Your task to perform on an android device: Open settings on Google Maps Image 0: 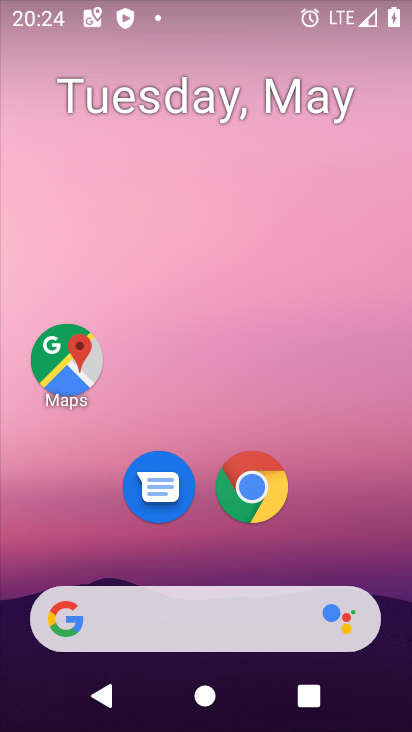
Step 0: click (68, 358)
Your task to perform on an android device: Open settings on Google Maps Image 1: 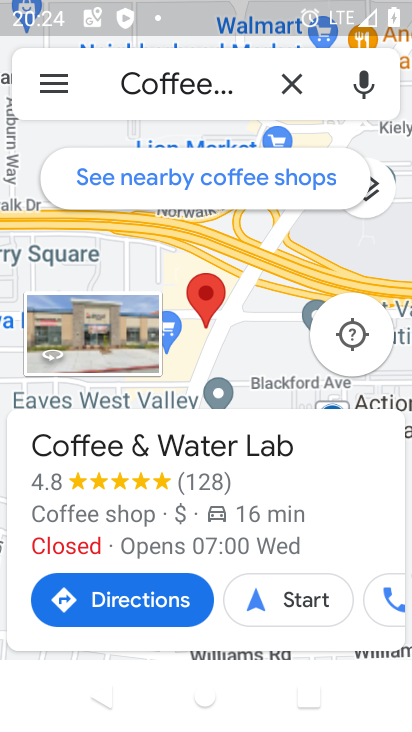
Step 1: click (56, 77)
Your task to perform on an android device: Open settings on Google Maps Image 2: 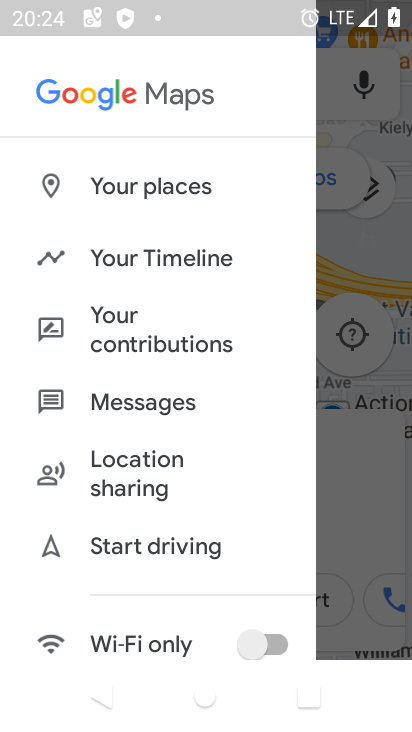
Step 2: drag from (136, 559) to (136, 143)
Your task to perform on an android device: Open settings on Google Maps Image 3: 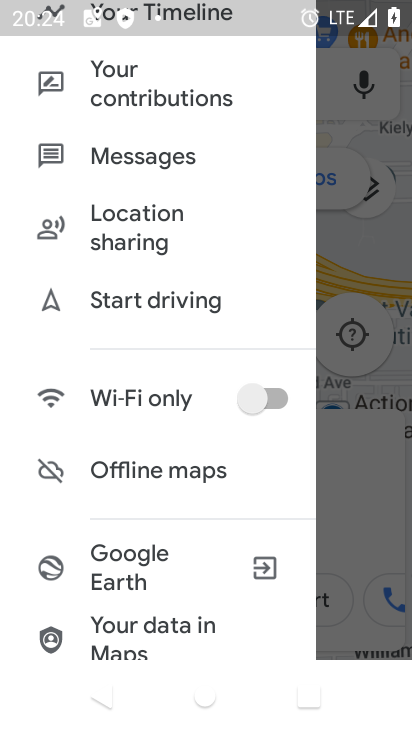
Step 3: drag from (142, 493) to (155, 183)
Your task to perform on an android device: Open settings on Google Maps Image 4: 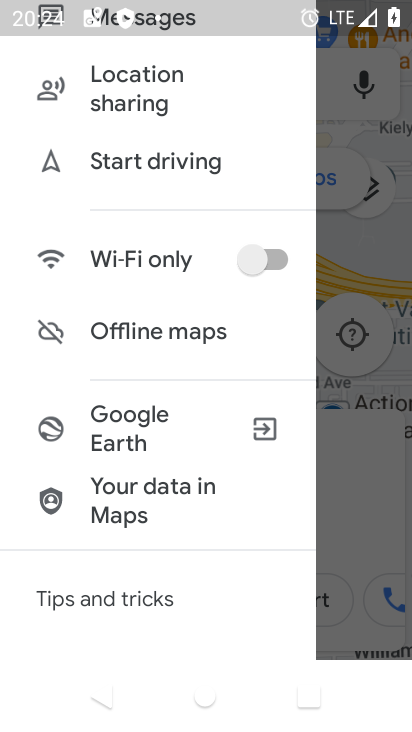
Step 4: drag from (160, 539) to (147, 262)
Your task to perform on an android device: Open settings on Google Maps Image 5: 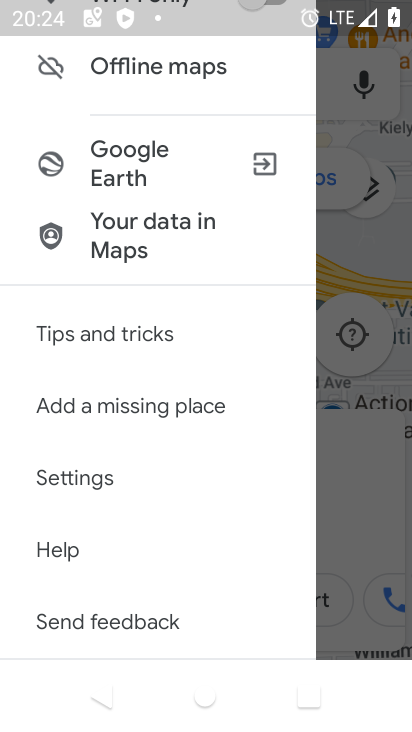
Step 5: click (81, 480)
Your task to perform on an android device: Open settings on Google Maps Image 6: 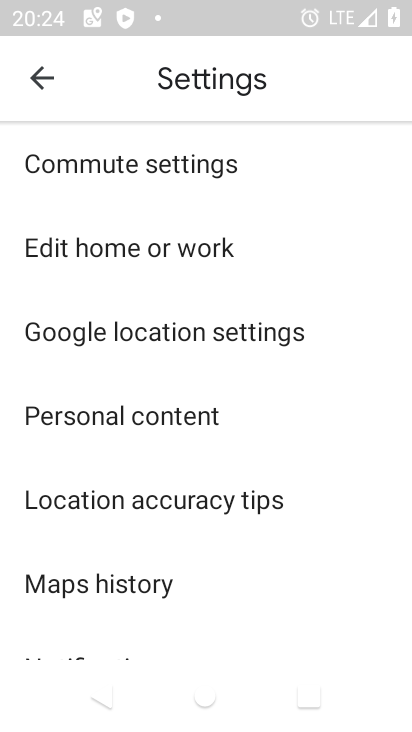
Step 6: task complete